Your task to perform on an android device: turn on sleep mode Image 0: 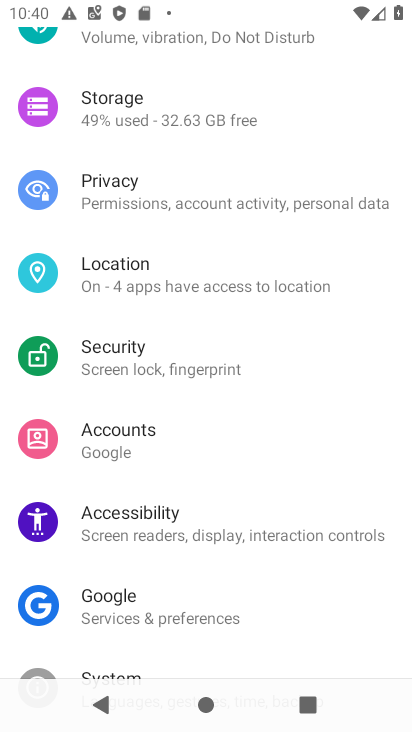
Step 0: drag from (178, 176) to (190, 573)
Your task to perform on an android device: turn on sleep mode Image 1: 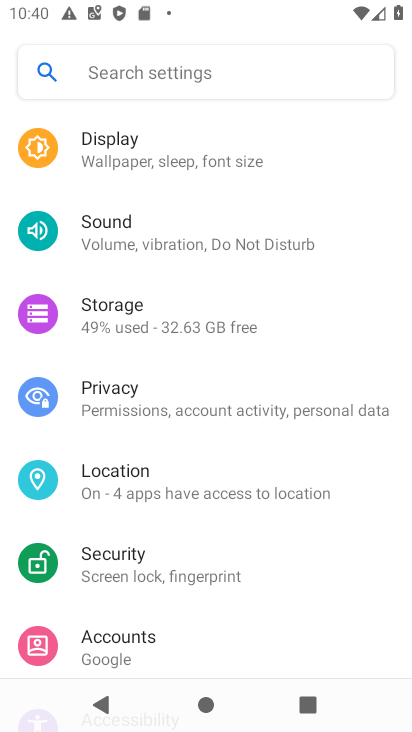
Step 1: drag from (119, 151) to (148, 580)
Your task to perform on an android device: turn on sleep mode Image 2: 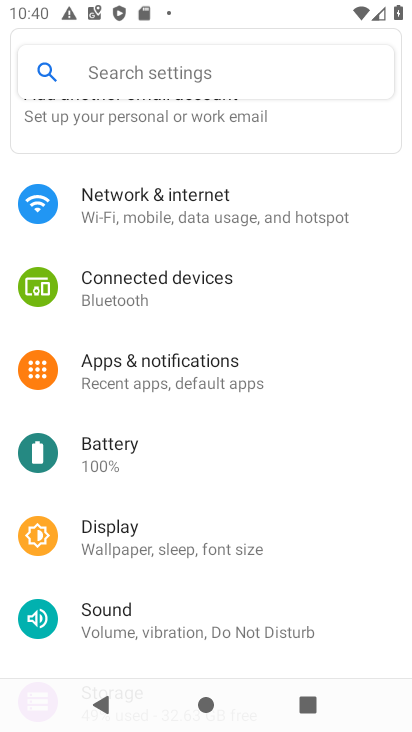
Step 2: click (127, 215)
Your task to perform on an android device: turn on sleep mode Image 3: 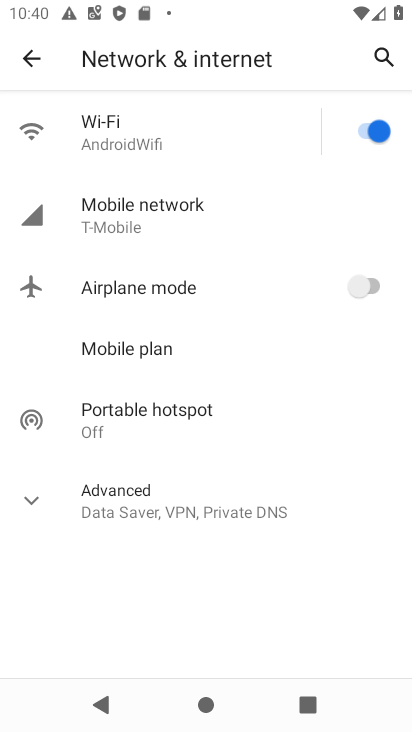
Step 3: click (29, 60)
Your task to perform on an android device: turn on sleep mode Image 4: 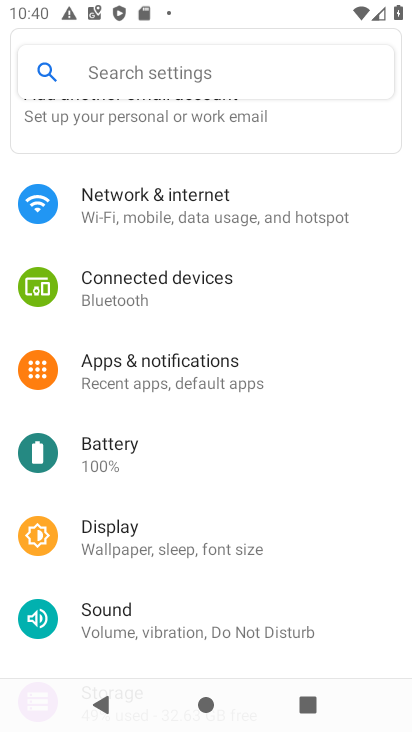
Step 4: drag from (168, 569) to (156, 374)
Your task to perform on an android device: turn on sleep mode Image 5: 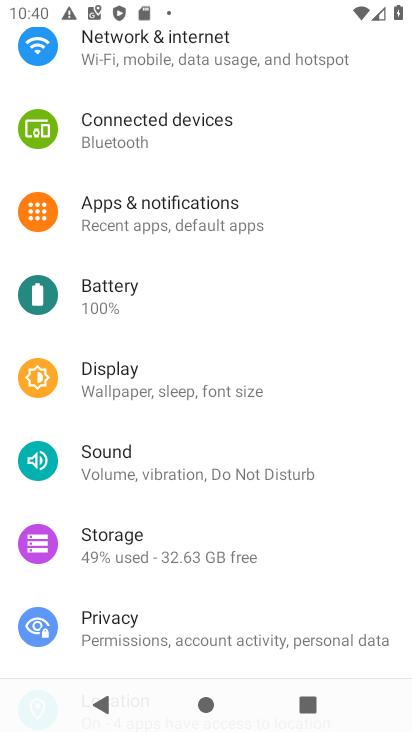
Step 5: drag from (180, 563) to (180, 278)
Your task to perform on an android device: turn on sleep mode Image 6: 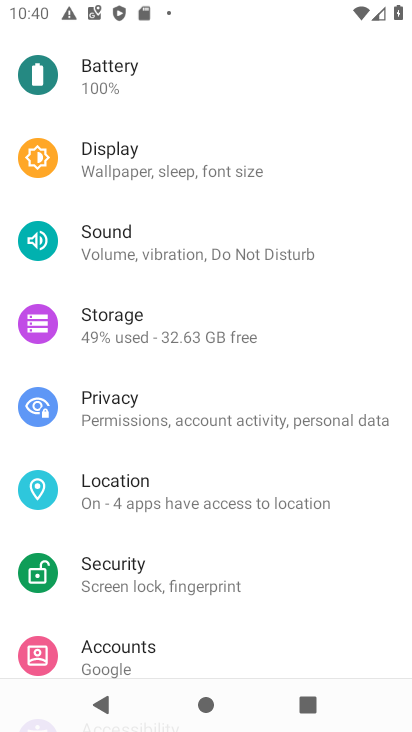
Step 6: click (175, 167)
Your task to perform on an android device: turn on sleep mode Image 7: 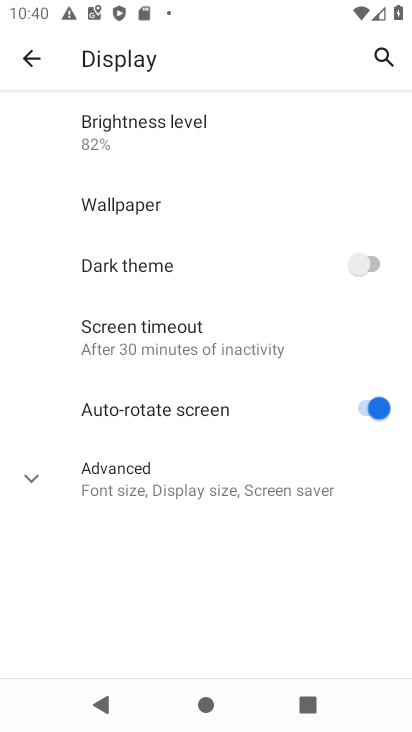
Step 7: task complete